Your task to perform on an android device: make emails show in primary in the gmail app Image 0: 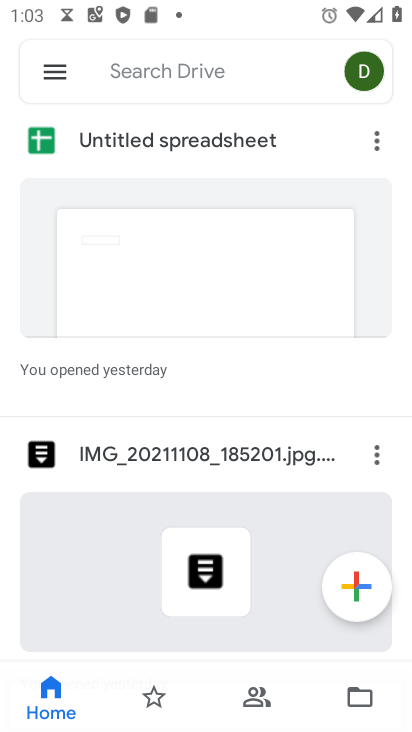
Step 0: press home button
Your task to perform on an android device: make emails show in primary in the gmail app Image 1: 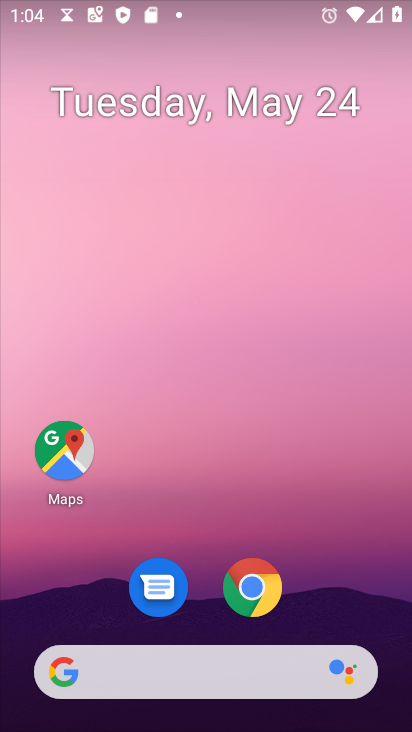
Step 1: drag from (251, 646) to (210, 309)
Your task to perform on an android device: make emails show in primary in the gmail app Image 2: 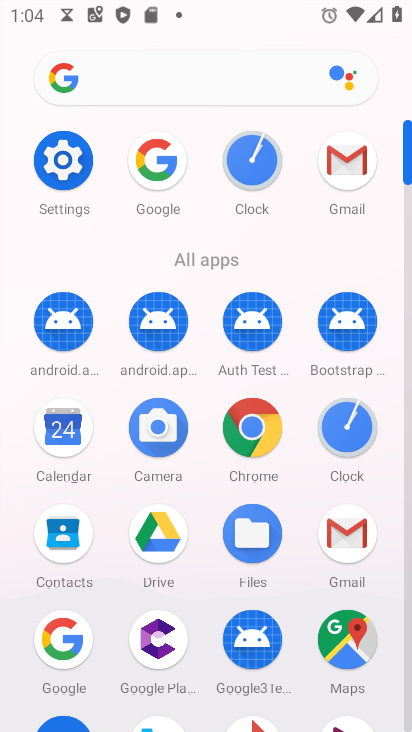
Step 2: click (335, 534)
Your task to perform on an android device: make emails show in primary in the gmail app Image 3: 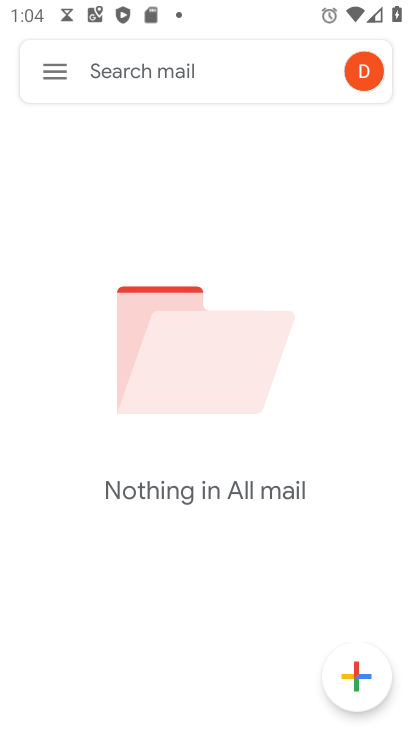
Step 3: click (56, 76)
Your task to perform on an android device: make emails show in primary in the gmail app Image 4: 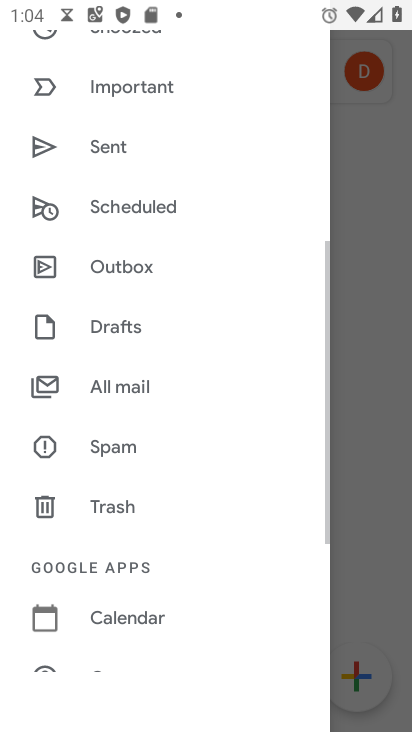
Step 4: drag from (156, 575) to (119, 129)
Your task to perform on an android device: make emails show in primary in the gmail app Image 5: 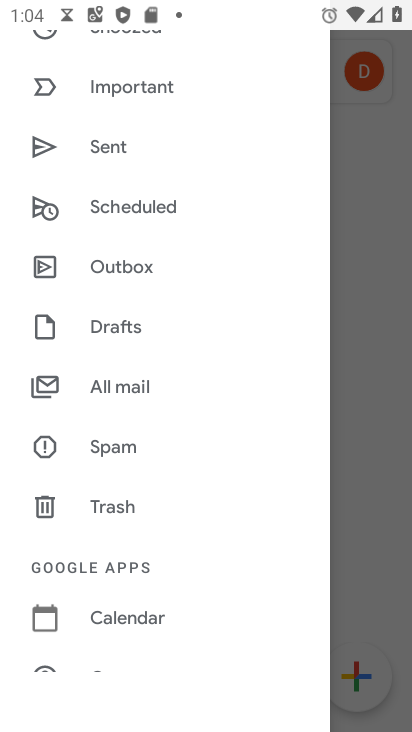
Step 5: drag from (122, 567) to (109, 270)
Your task to perform on an android device: make emails show in primary in the gmail app Image 6: 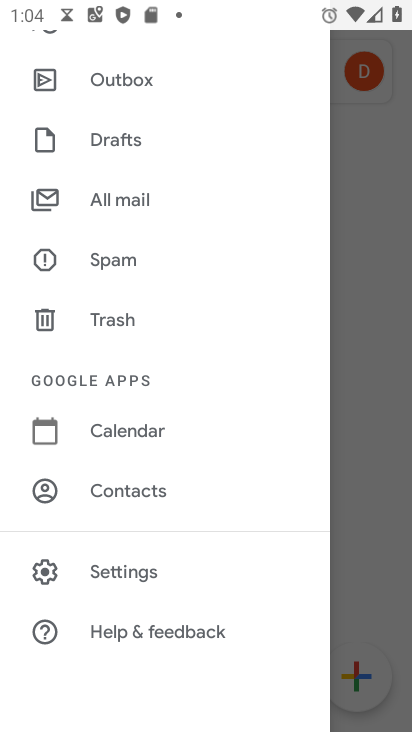
Step 6: click (113, 584)
Your task to perform on an android device: make emails show in primary in the gmail app Image 7: 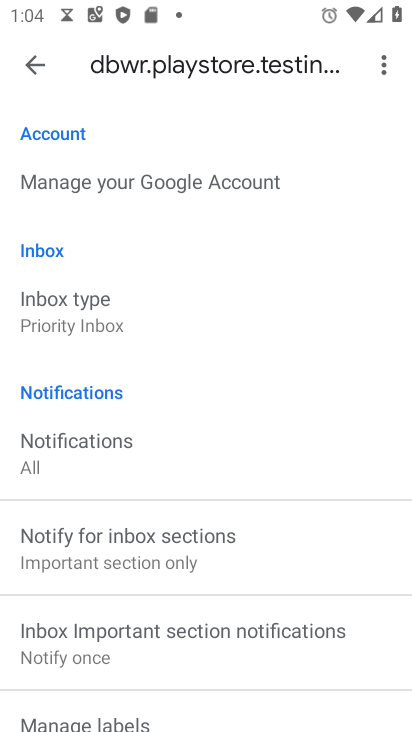
Step 7: click (75, 343)
Your task to perform on an android device: make emails show in primary in the gmail app Image 8: 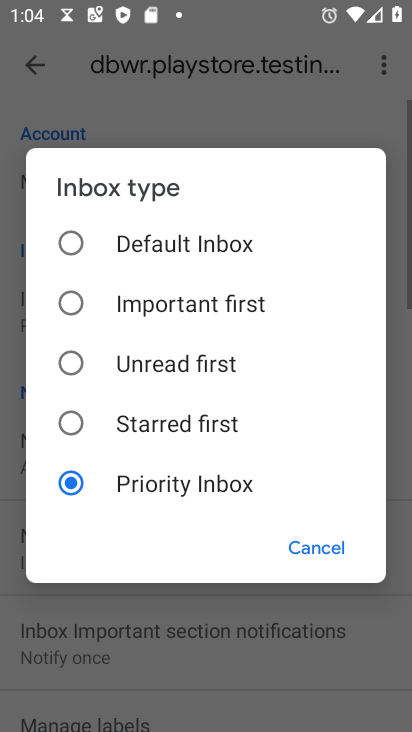
Step 8: click (134, 238)
Your task to perform on an android device: make emails show in primary in the gmail app Image 9: 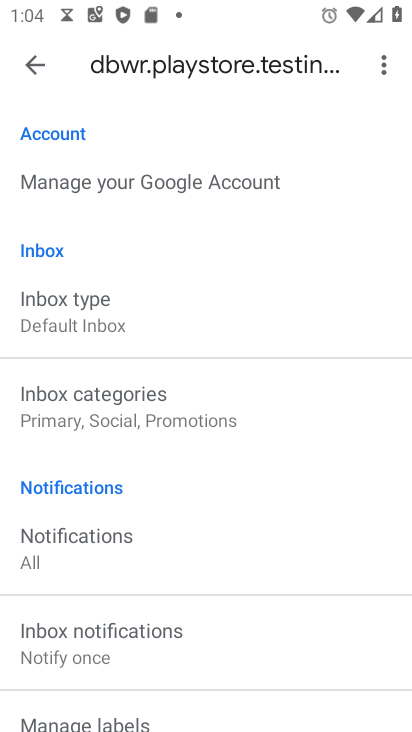
Step 9: click (140, 417)
Your task to perform on an android device: make emails show in primary in the gmail app Image 10: 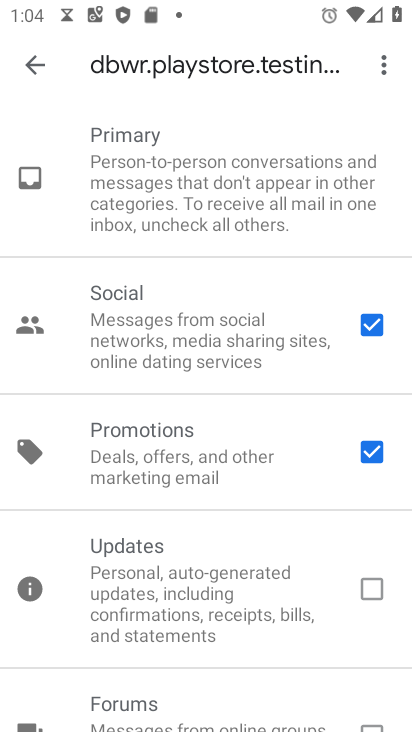
Step 10: click (363, 335)
Your task to perform on an android device: make emails show in primary in the gmail app Image 11: 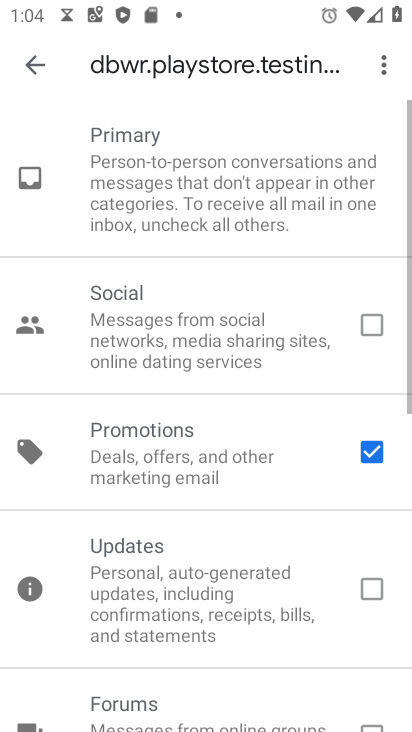
Step 11: click (379, 469)
Your task to perform on an android device: make emails show in primary in the gmail app Image 12: 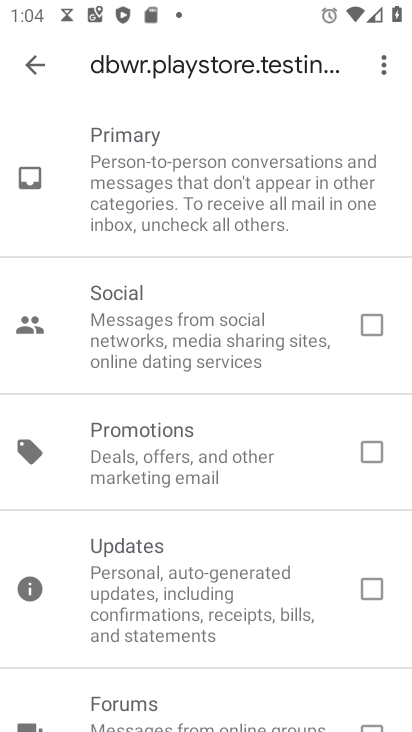
Step 12: task complete